Your task to perform on an android device: Go to network settings Image 0: 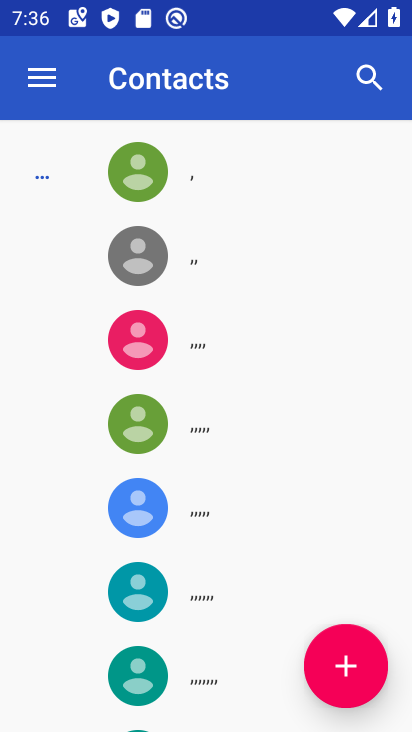
Step 0: press home button
Your task to perform on an android device: Go to network settings Image 1: 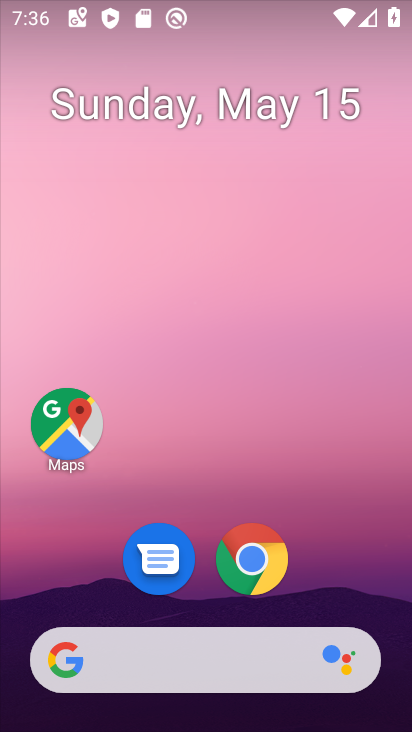
Step 1: press home button
Your task to perform on an android device: Go to network settings Image 2: 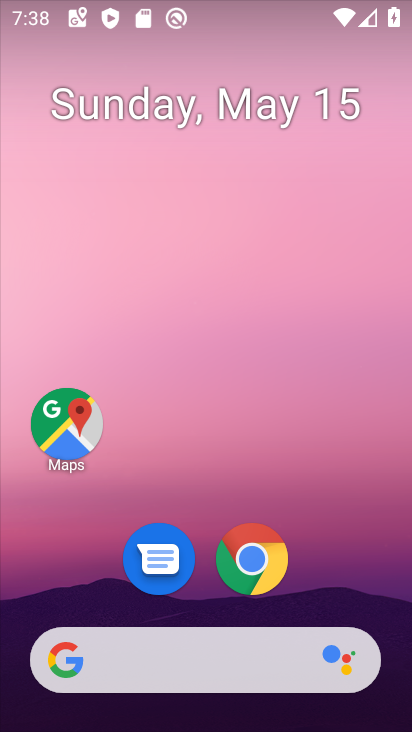
Step 2: drag from (381, 570) to (326, 56)
Your task to perform on an android device: Go to network settings Image 3: 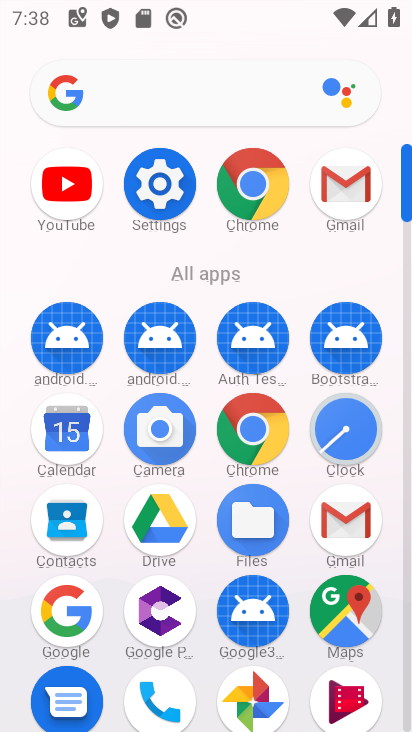
Step 3: click (150, 203)
Your task to perform on an android device: Go to network settings Image 4: 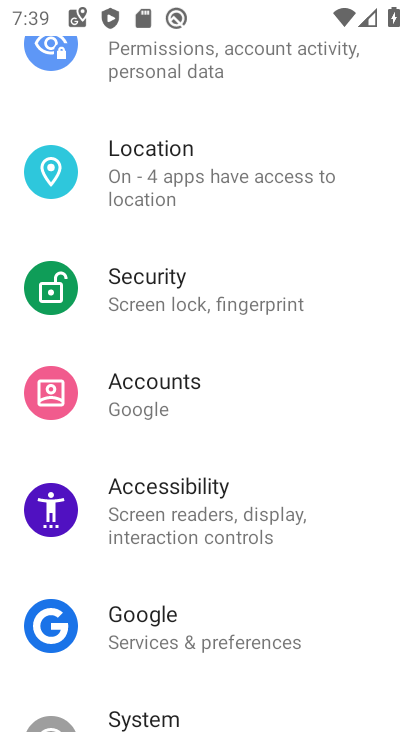
Step 4: drag from (185, 69) to (167, 721)
Your task to perform on an android device: Go to network settings Image 5: 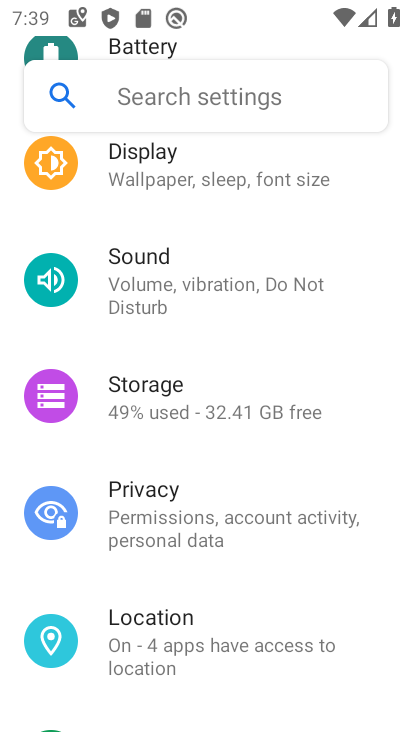
Step 5: drag from (183, 373) to (173, 704)
Your task to perform on an android device: Go to network settings Image 6: 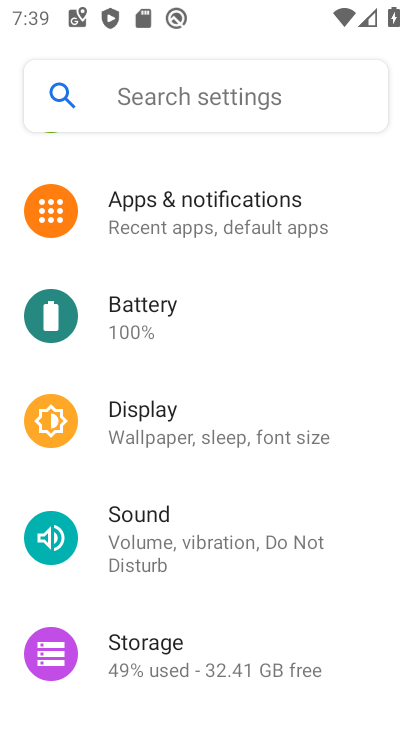
Step 6: drag from (216, 231) to (192, 604)
Your task to perform on an android device: Go to network settings Image 7: 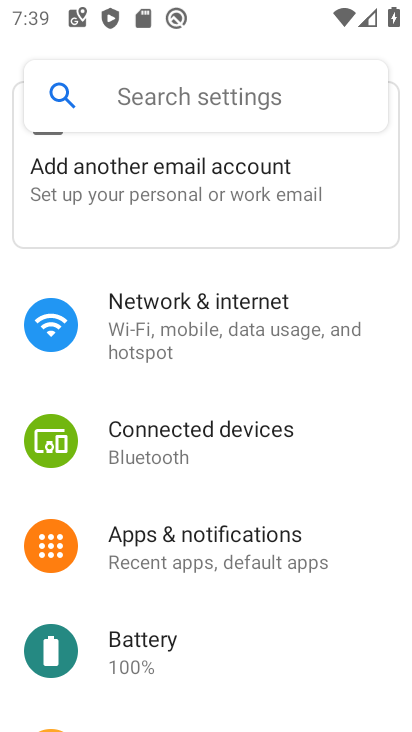
Step 7: click (199, 333)
Your task to perform on an android device: Go to network settings Image 8: 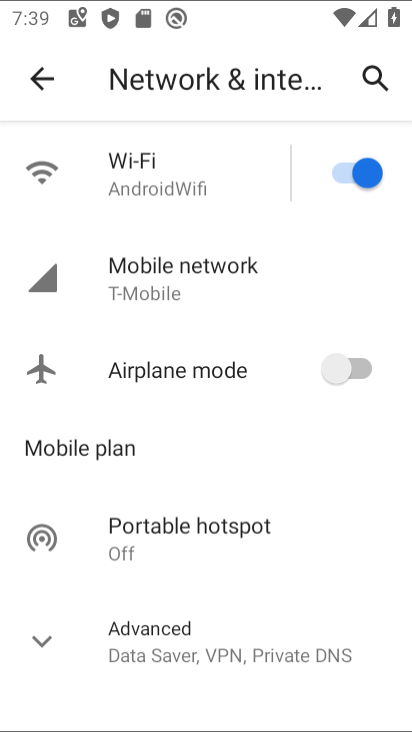
Step 8: task complete